Your task to perform on an android device: Open network settings Image 0: 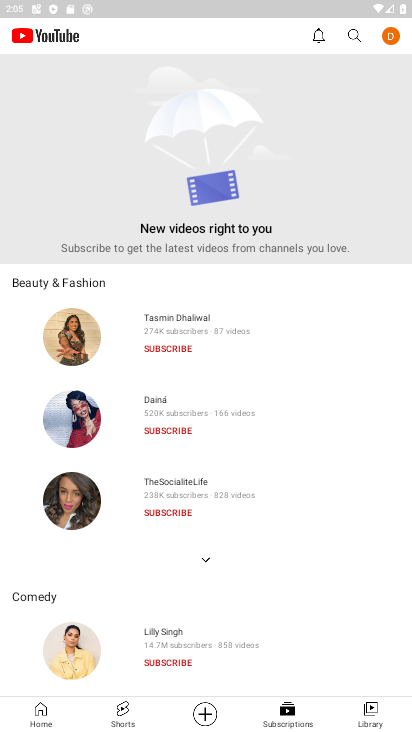
Step 0: press back button
Your task to perform on an android device: Open network settings Image 1: 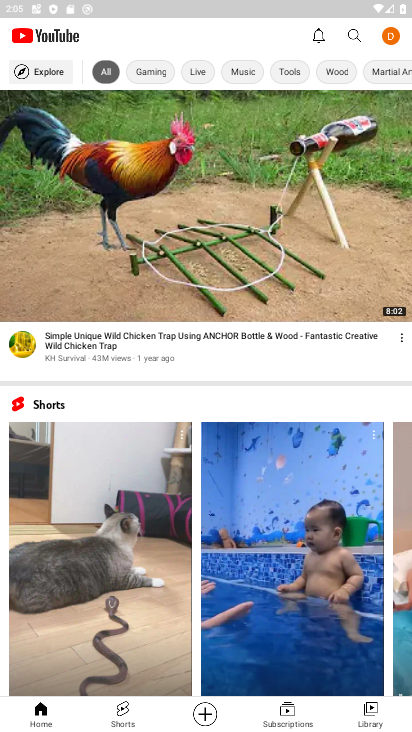
Step 1: press back button
Your task to perform on an android device: Open network settings Image 2: 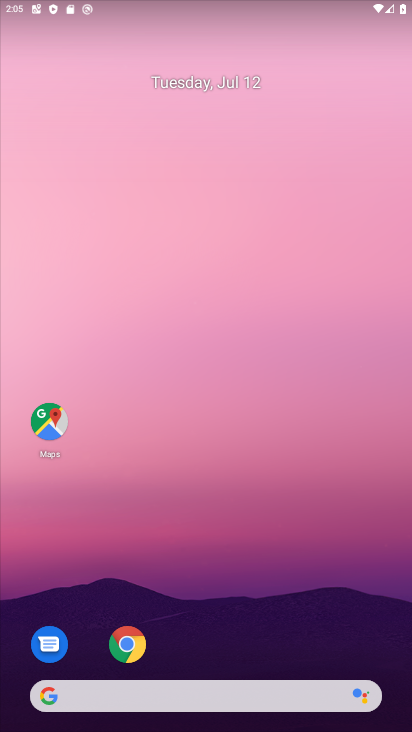
Step 2: drag from (178, 660) to (161, 81)
Your task to perform on an android device: Open network settings Image 3: 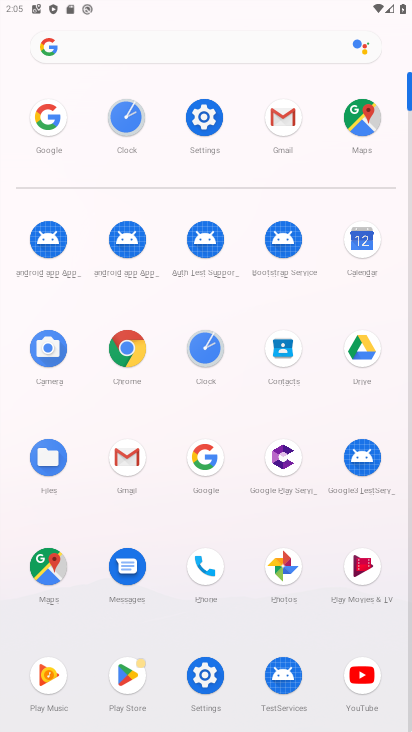
Step 3: click (197, 112)
Your task to perform on an android device: Open network settings Image 4: 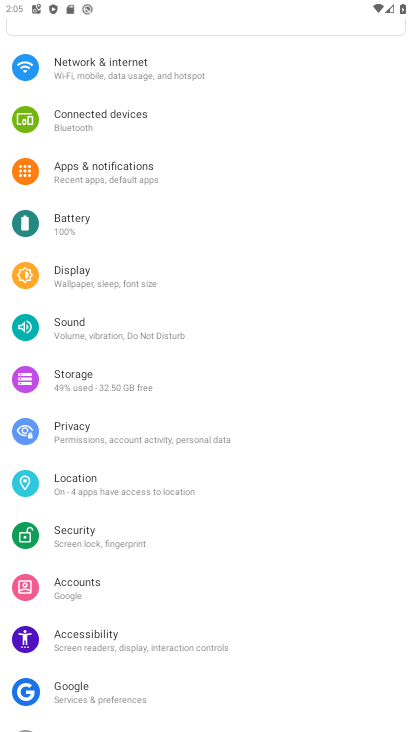
Step 4: click (110, 63)
Your task to perform on an android device: Open network settings Image 5: 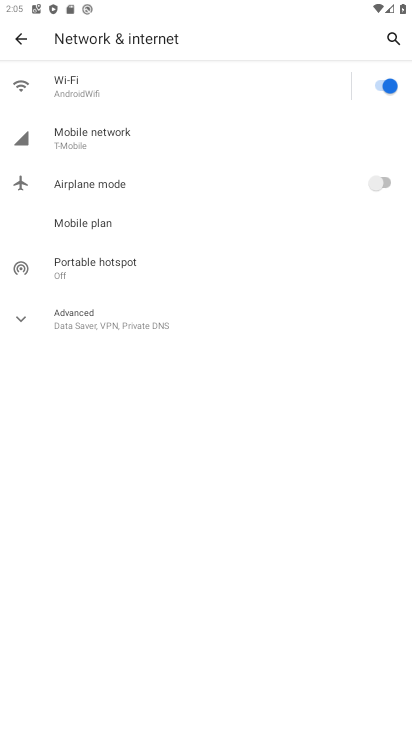
Step 5: click (98, 134)
Your task to perform on an android device: Open network settings Image 6: 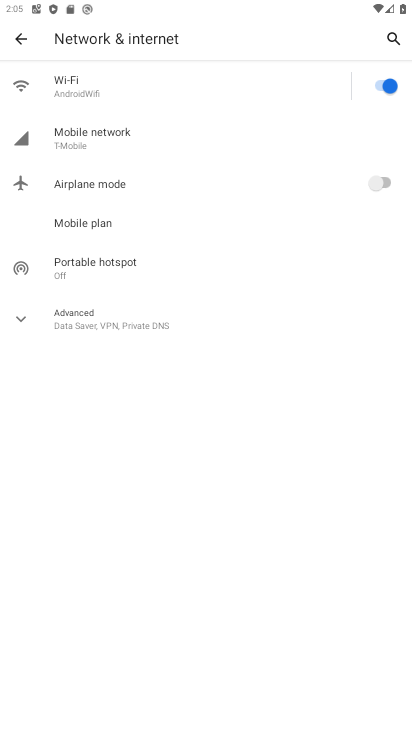
Step 6: task complete